Your task to perform on an android device: Open Chrome and go to settings Image 0: 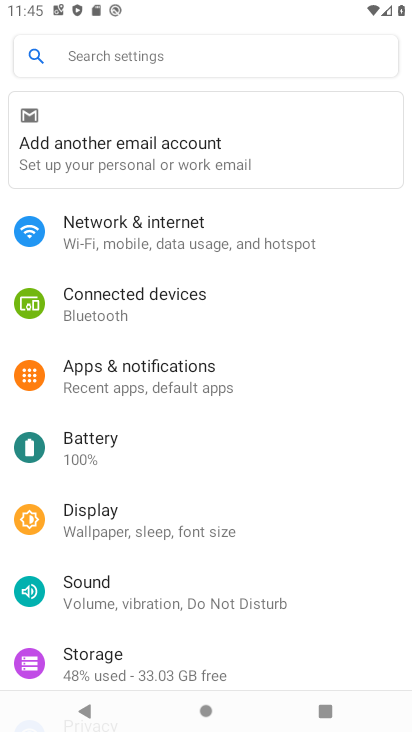
Step 0: press home button
Your task to perform on an android device: Open Chrome and go to settings Image 1: 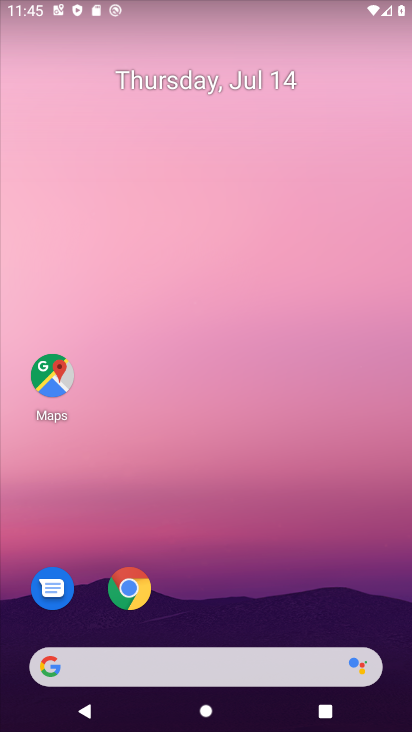
Step 1: click (124, 598)
Your task to perform on an android device: Open Chrome and go to settings Image 2: 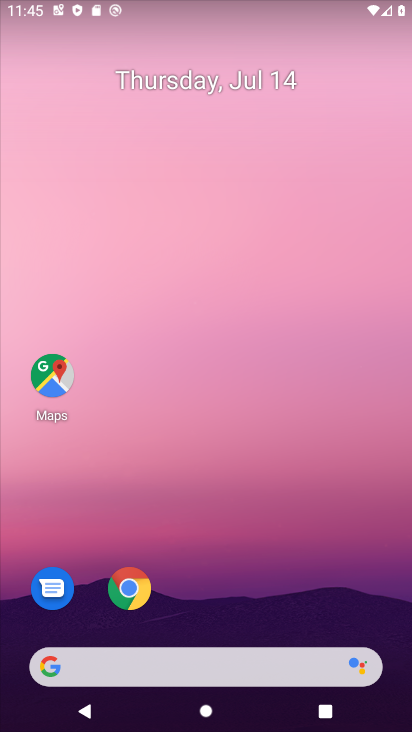
Step 2: click (124, 598)
Your task to perform on an android device: Open Chrome and go to settings Image 3: 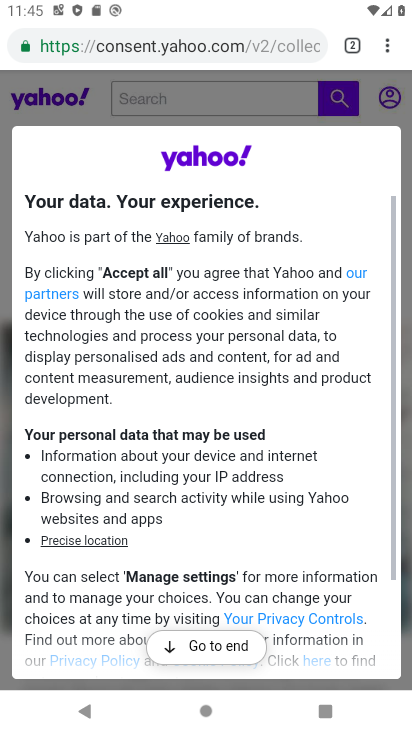
Step 3: click (388, 41)
Your task to perform on an android device: Open Chrome and go to settings Image 4: 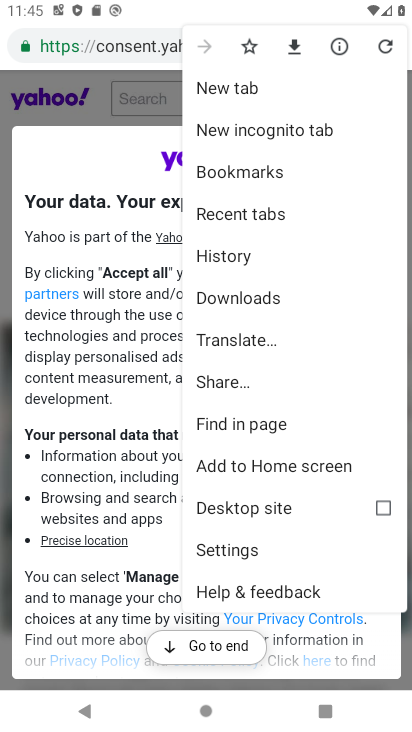
Step 4: click (231, 550)
Your task to perform on an android device: Open Chrome and go to settings Image 5: 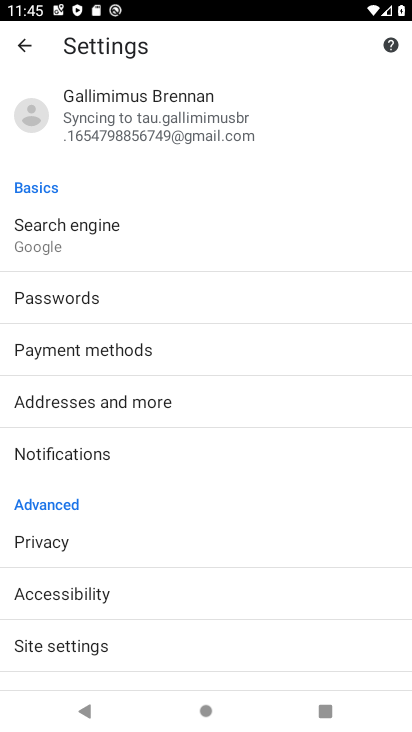
Step 5: task complete